Your task to perform on an android device: Open Reddit.com Image 0: 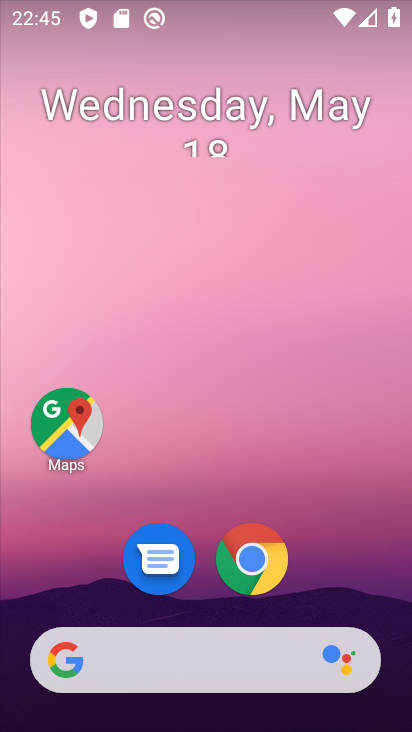
Step 0: click (258, 564)
Your task to perform on an android device: Open Reddit.com Image 1: 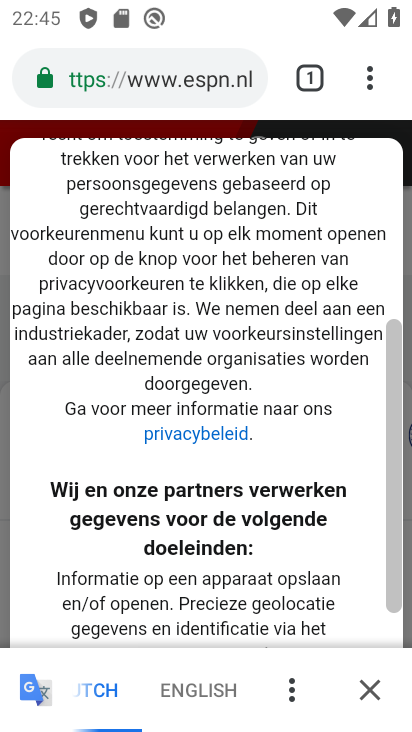
Step 1: click (164, 85)
Your task to perform on an android device: Open Reddit.com Image 2: 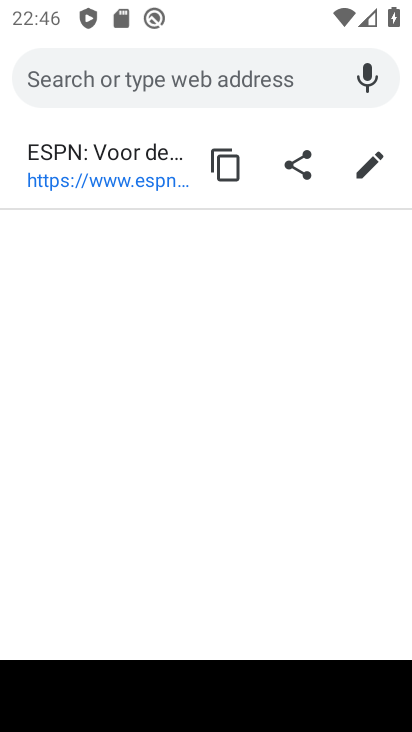
Step 2: type "www.reddit.com"
Your task to perform on an android device: Open Reddit.com Image 3: 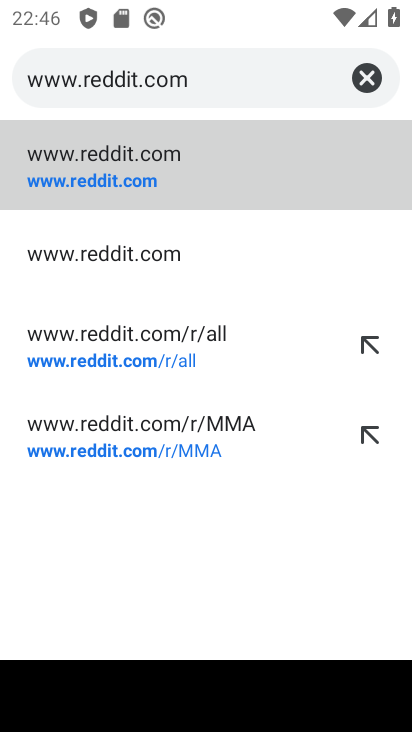
Step 3: click (137, 173)
Your task to perform on an android device: Open Reddit.com Image 4: 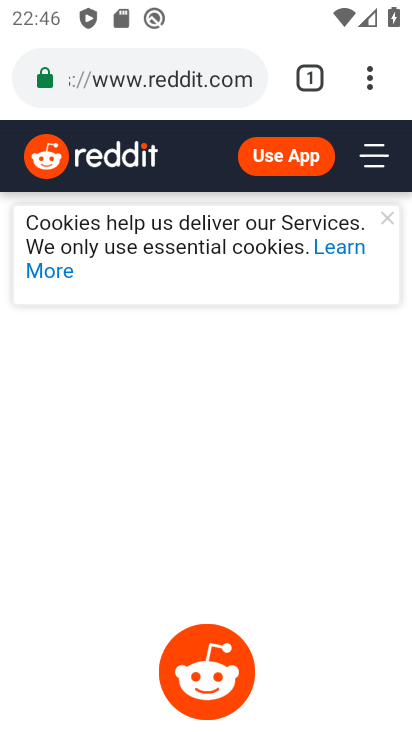
Step 4: task complete